Your task to perform on an android device: Open Maps and search for coffee Image 0: 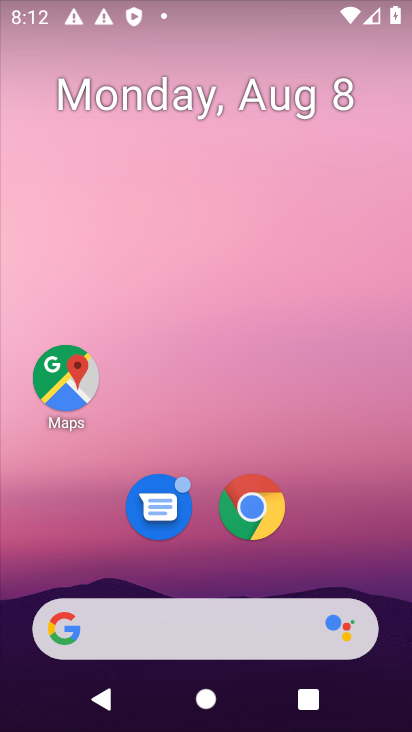
Step 0: drag from (253, 607) to (180, 103)
Your task to perform on an android device: Open Maps and search for coffee Image 1: 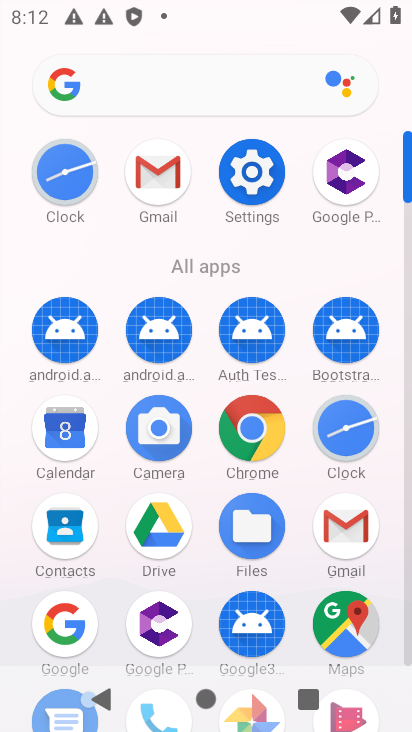
Step 1: click (332, 621)
Your task to perform on an android device: Open Maps and search for coffee Image 2: 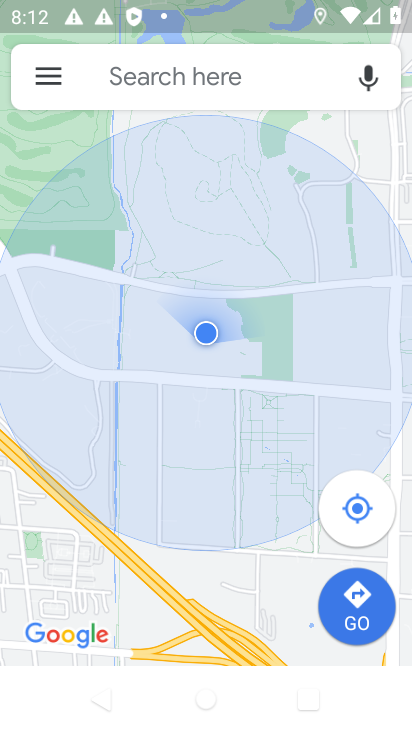
Step 2: click (207, 84)
Your task to perform on an android device: Open Maps and search for coffee Image 3: 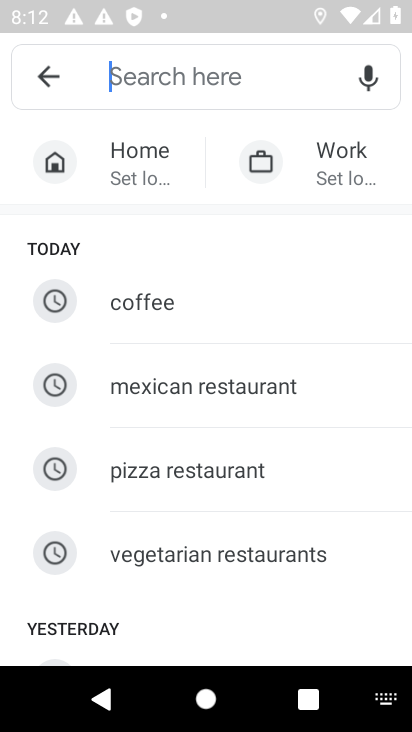
Step 3: click (183, 293)
Your task to perform on an android device: Open Maps and search for coffee Image 4: 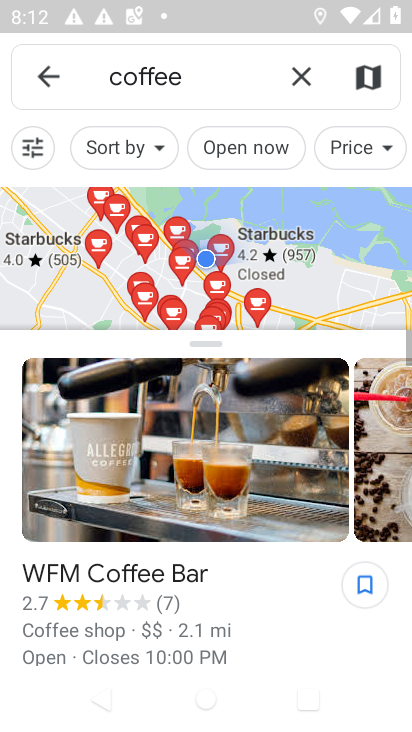
Step 4: task complete